Your task to perform on an android device: Turn on the flashlight Image 0: 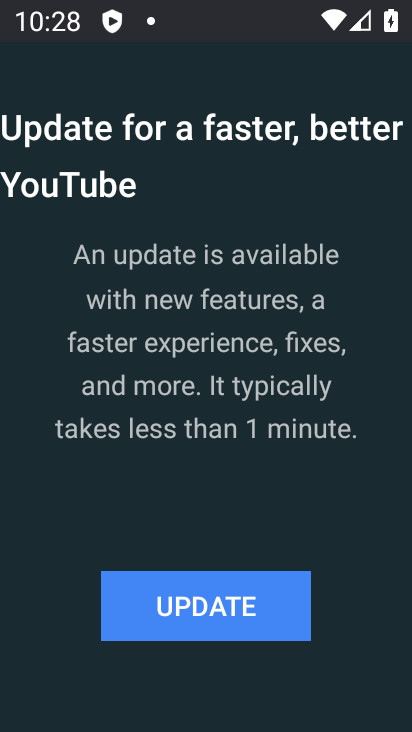
Step 0: press home button
Your task to perform on an android device: Turn on the flashlight Image 1: 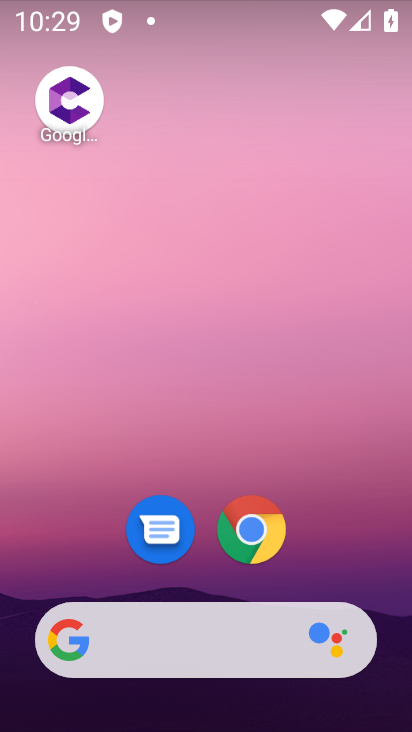
Step 1: task complete